Your task to perform on an android device: open device folders in google photos Image 0: 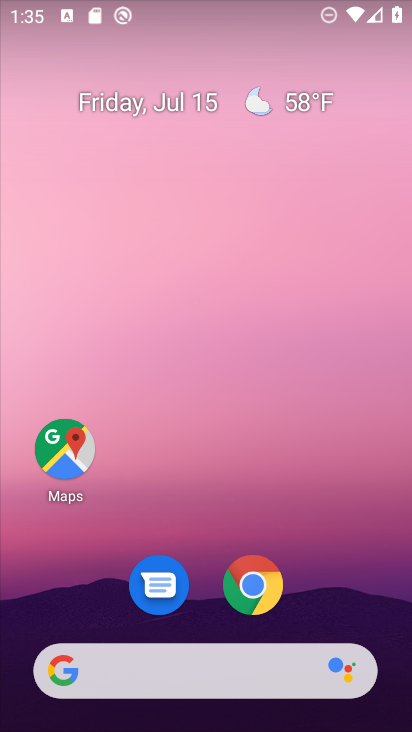
Step 0: drag from (262, 473) to (337, 47)
Your task to perform on an android device: open device folders in google photos Image 1: 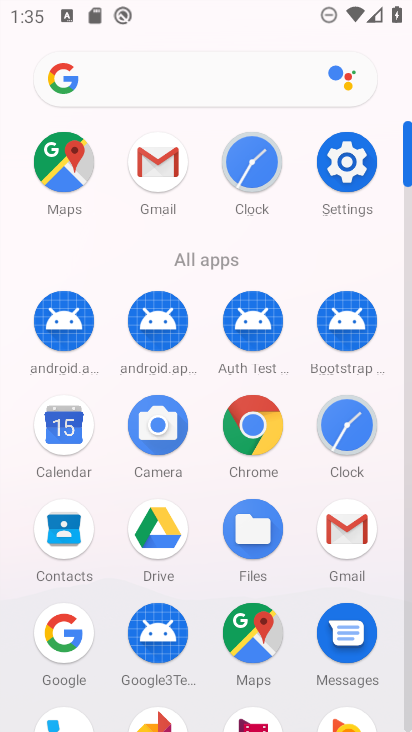
Step 1: drag from (199, 485) to (171, 215)
Your task to perform on an android device: open device folders in google photos Image 2: 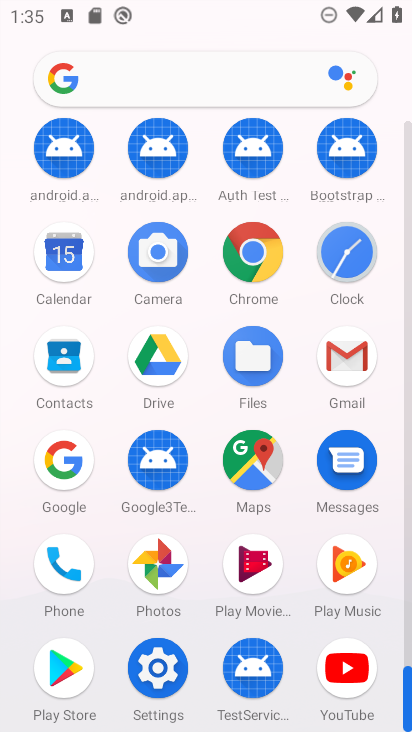
Step 2: click (156, 552)
Your task to perform on an android device: open device folders in google photos Image 3: 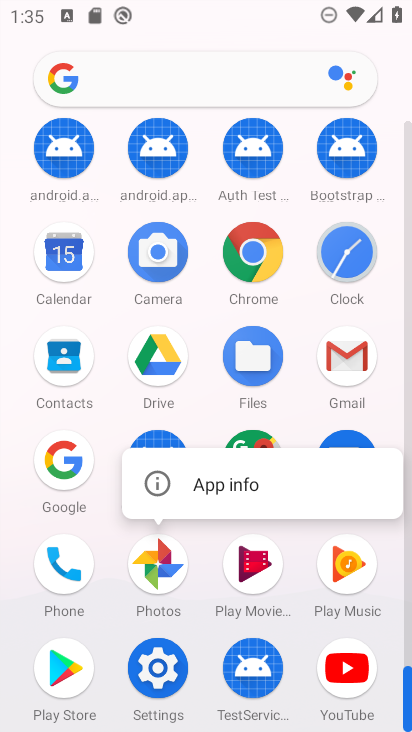
Step 3: click (159, 570)
Your task to perform on an android device: open device folders in google photos Image 4: 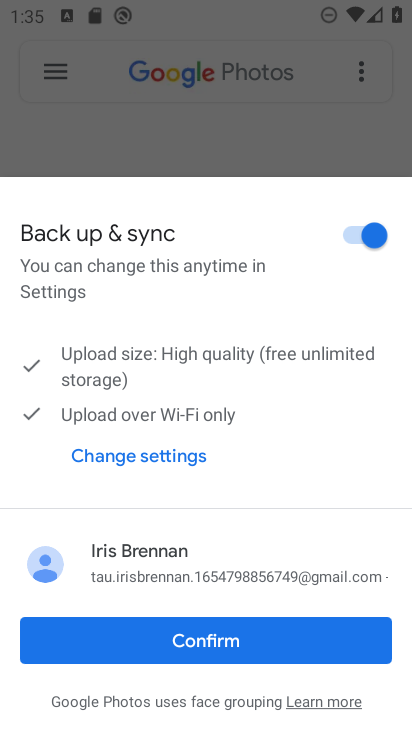
Step 4: click (195, 644)
Your task to perform on an android device: open device folders in google photos Image 5: 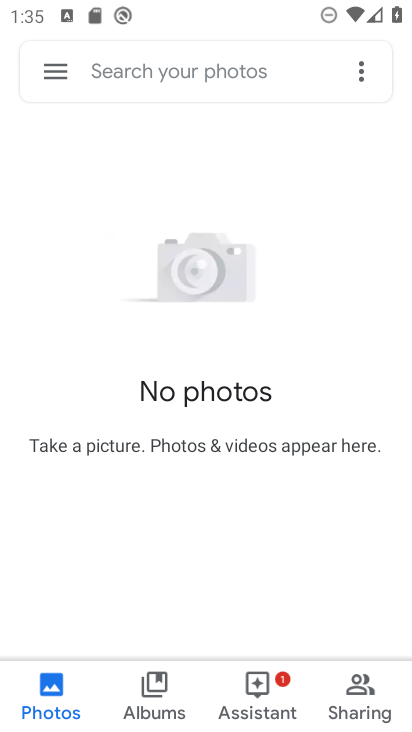
Step 5: click (61, 72)
Your task to perform on an android device: open device folders in google photos Image 6: 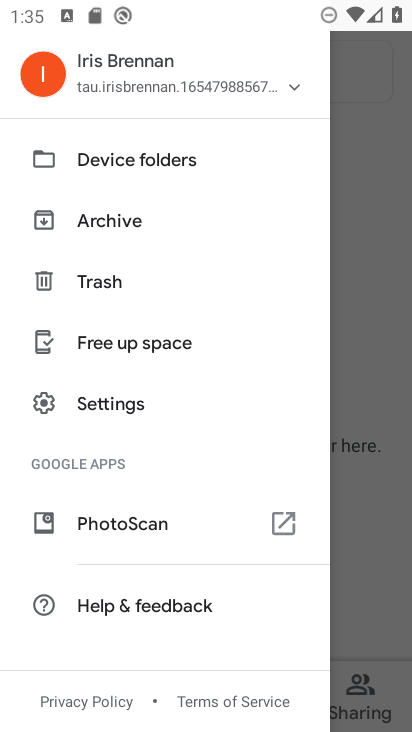
Step 6: click (162, 150)
Your task to perform on an android device: open device folders in google photos Image 7: 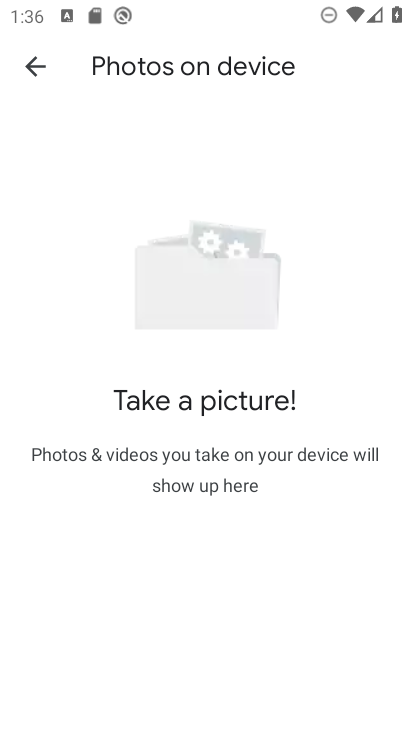
Step 7: task complete